Your task to perform on an android device: What's on the menu at Papa Murphy's? Image 0: 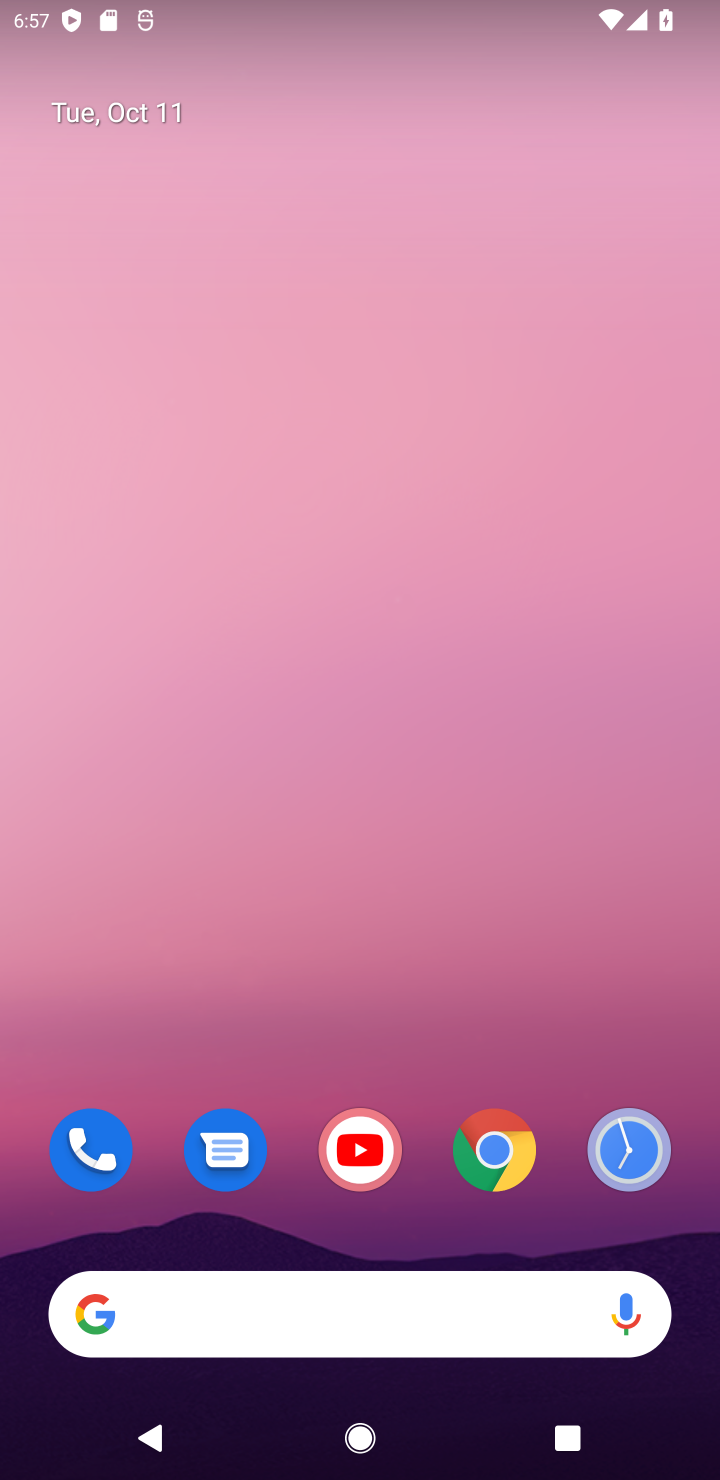
Step 0: click (492, 1167)
Your task to perform on an android device: What's on the menu at Papa Murphy's? Image 1: 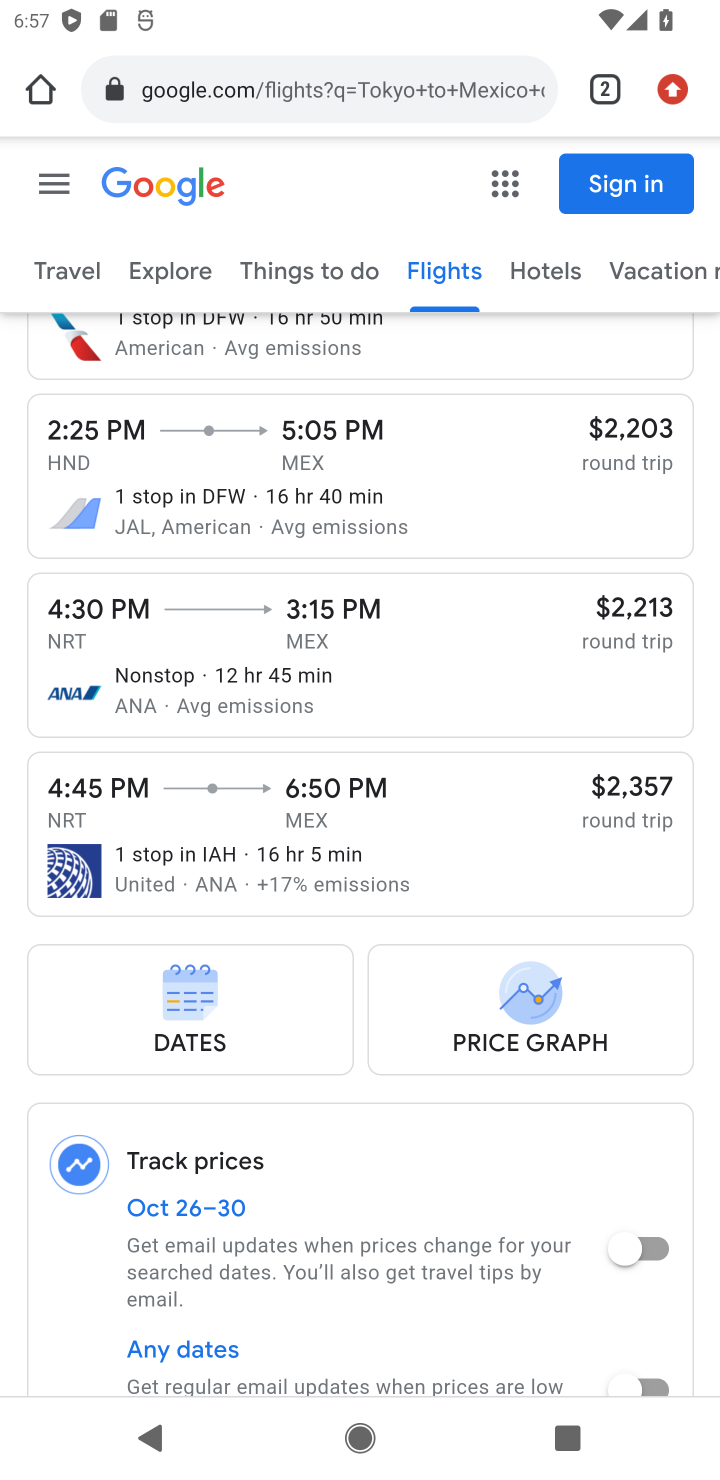
Step 1: click (296, 96)
Your task to perform on an android device: What's on the menu at Papa Murphy's? Image 2: 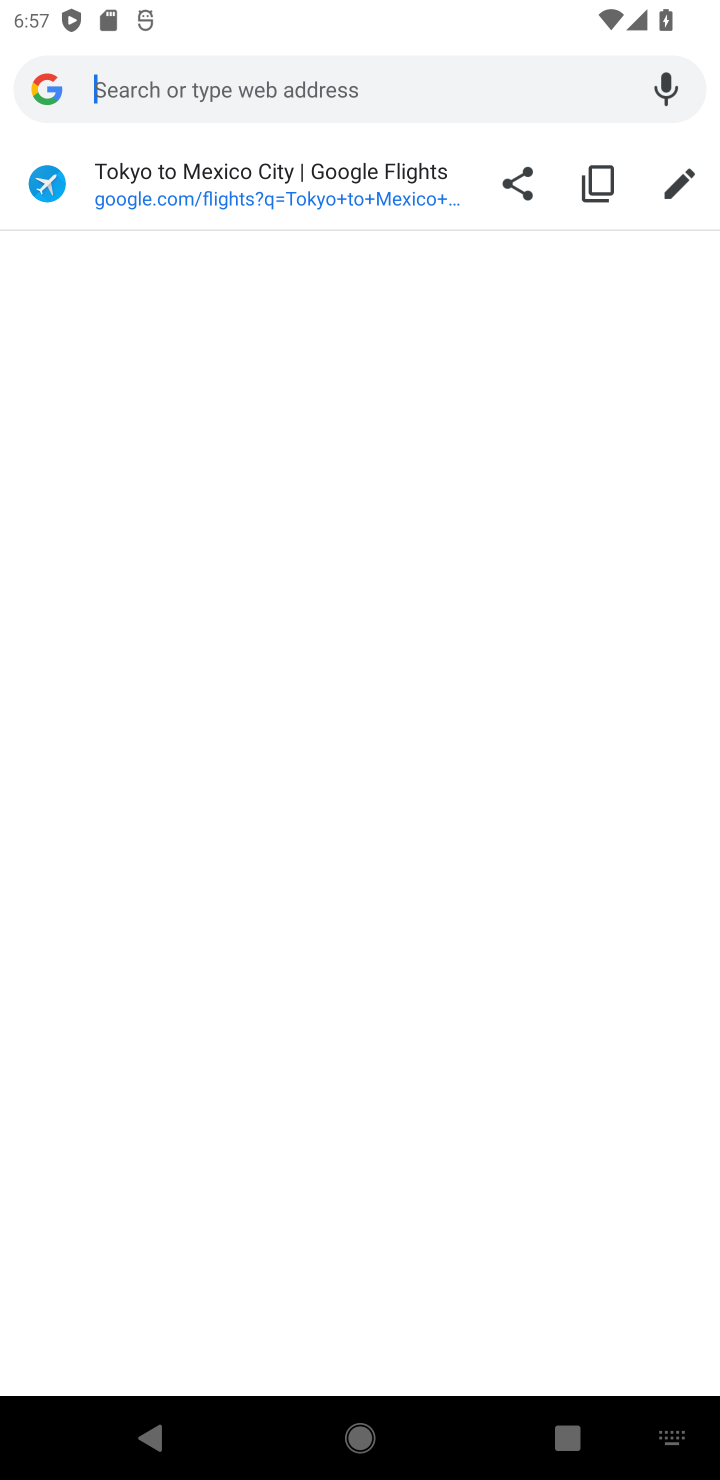
Step 2: type "menu at Papa Murphy's"
Your task to perform on an android device: What's on the menu at Papa Murphy's? Image 3: 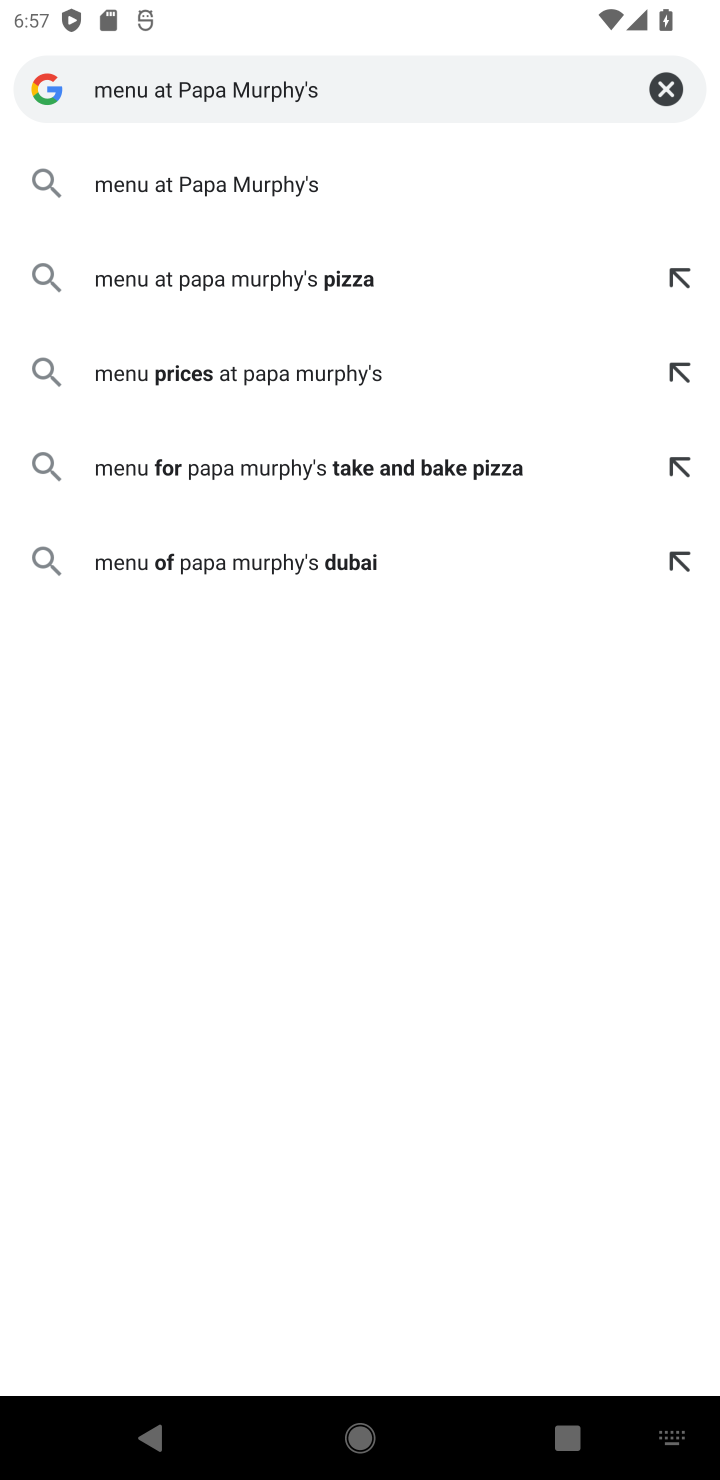
Step 3: click (204, 200)
Your task to perform on an android device: What's on the menu at Papa Murphy's? Image 4: 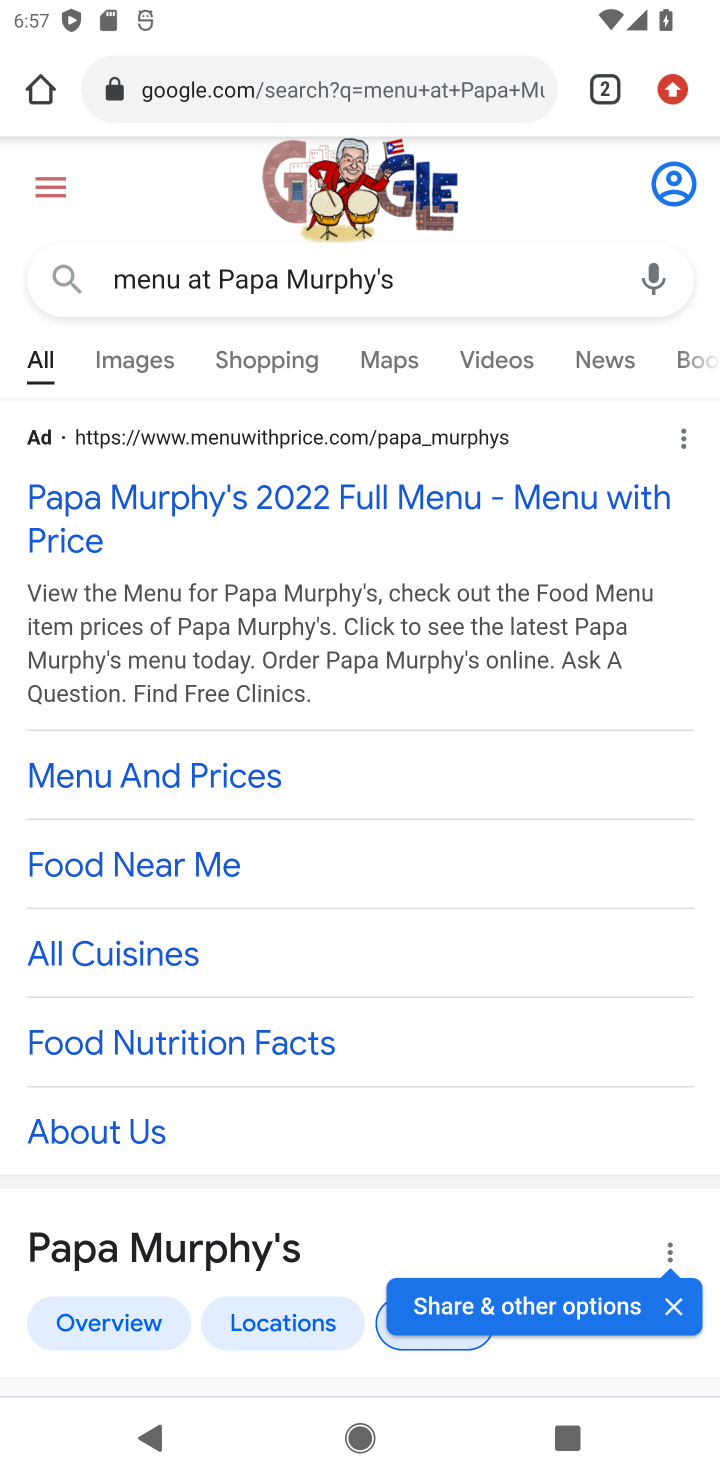
Step 4: task complete